Your task to perform on an android device: Do I have any events today? Image 0: 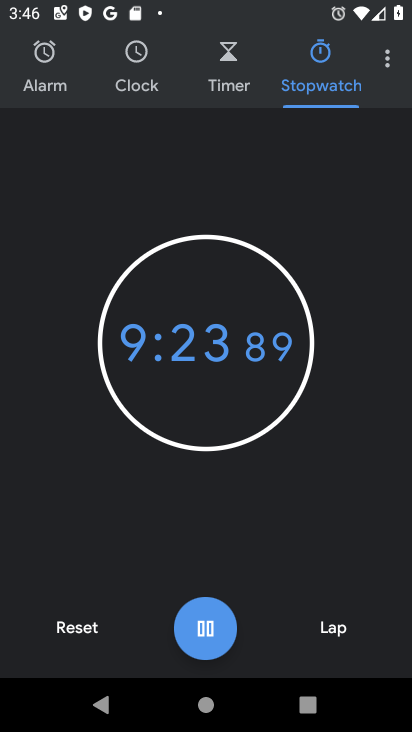
Step 0: press home button
Your task to perform on an android device: Do I have any events today? Image 1: 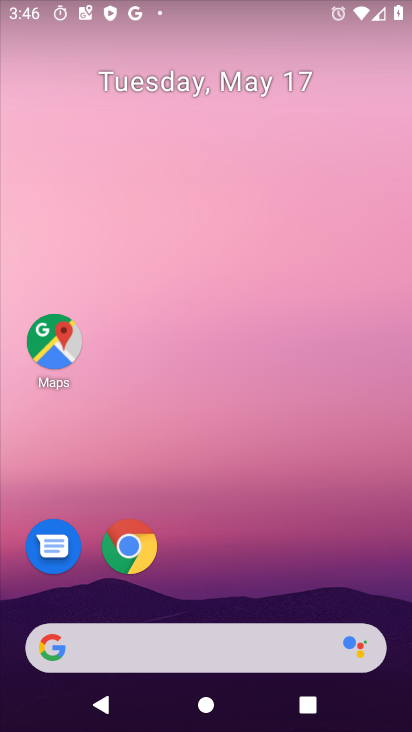
Step 1: drag from (400, 674) to (404, 274)
Your task to perform on an android device: Do I have any events today? Image 2: 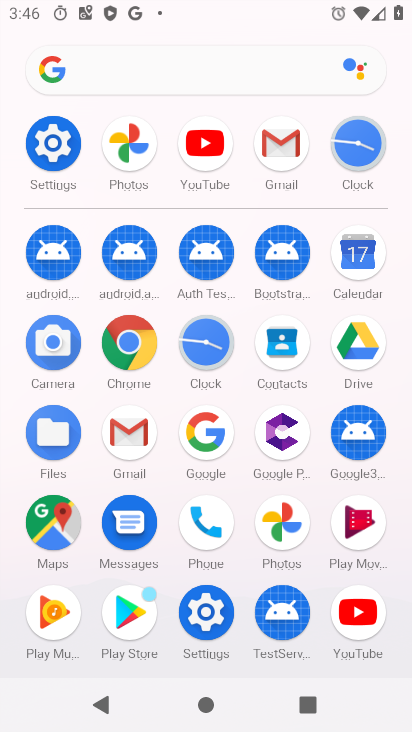
Step 2: click (362, 253)
Your task to perform on an android device: Do I have any events today? Image 3: 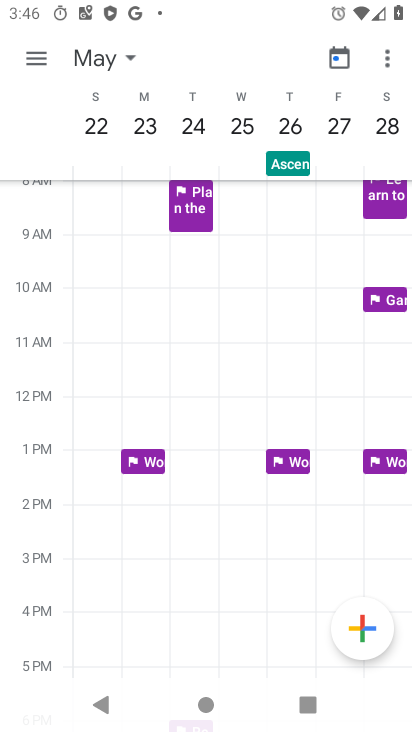
Step 3: click (123, 50)
Your task to perform on an android device: Do I have any events today? Image 4: 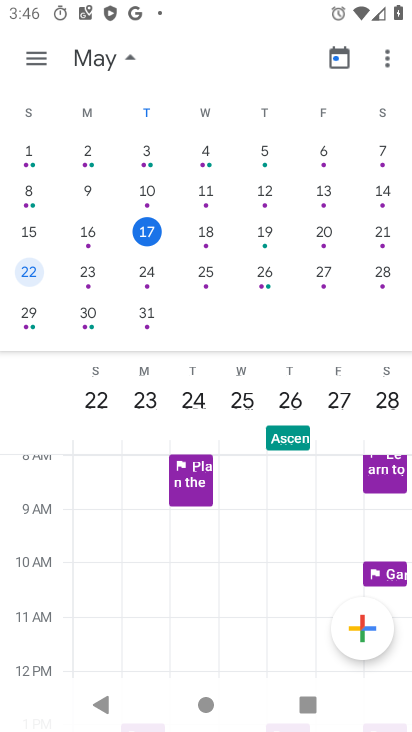
Step 4: click (31, 62)
Your task to perform on an android device: Do I have any events today? Image 5: 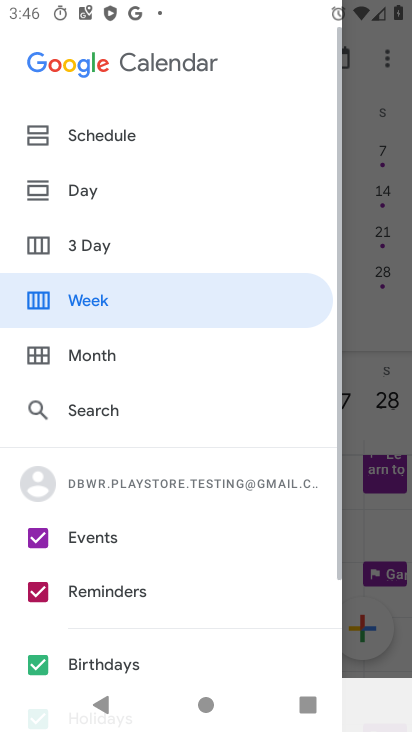
Step 5: click (101, 302)
Your task to perform on an android device: Do I have any events today? Image 6: 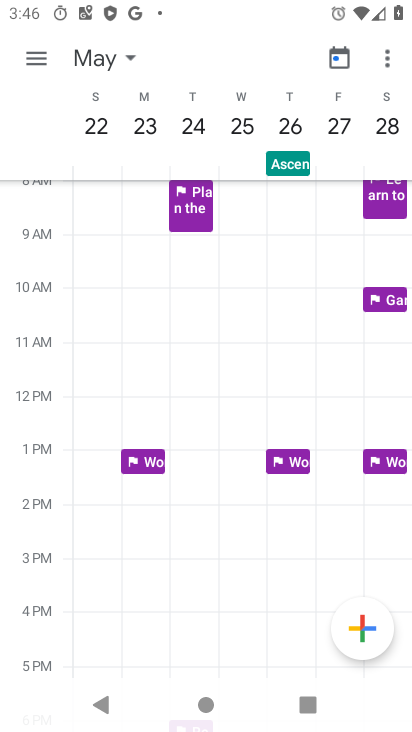
Step 6: click (126, 36)
Your task to perform on an android device: Do I have any events today? Image 7: 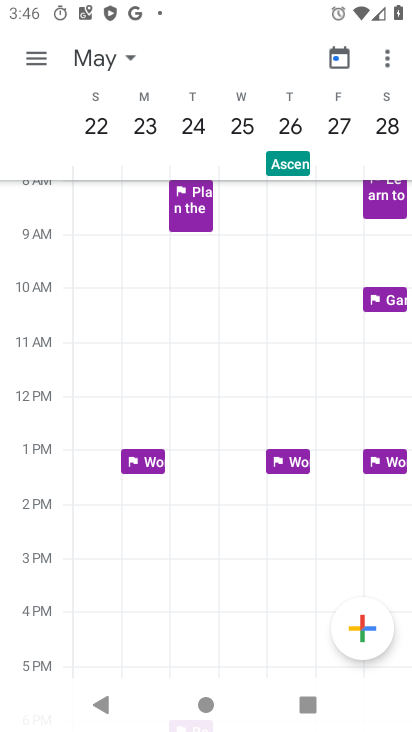
Step 7: click (125, 54)
Your task to perform on an android device: Do I have any events today? Image 8: 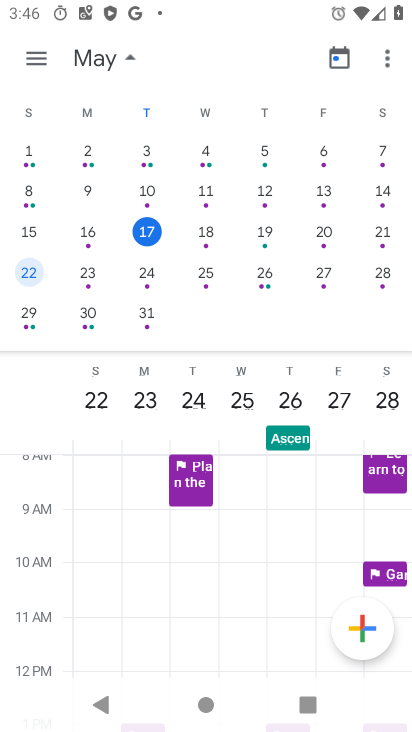
Step 8: click (149, 220)
Your task to perform on an android device: Do I have any events today? Image 9: 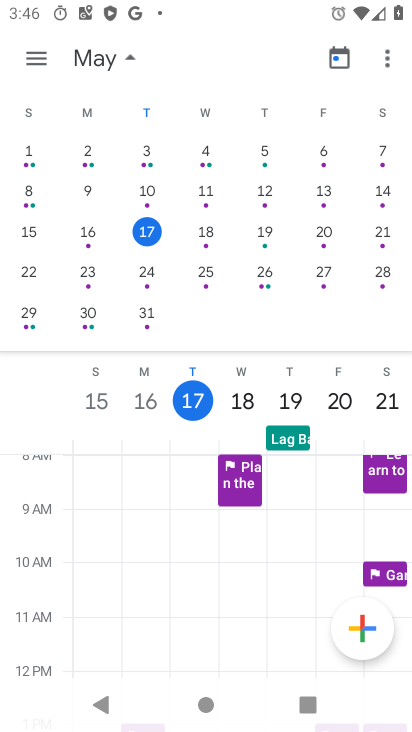
Step 9: task complete